Your task to perform on an android device: Open Google Maps Image 0: 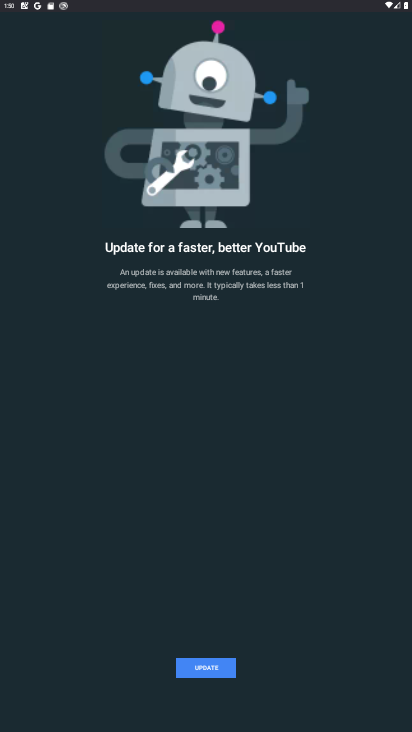
Step 0: press home button
Your task to perform on an android device: Open Google Maps Image 1: 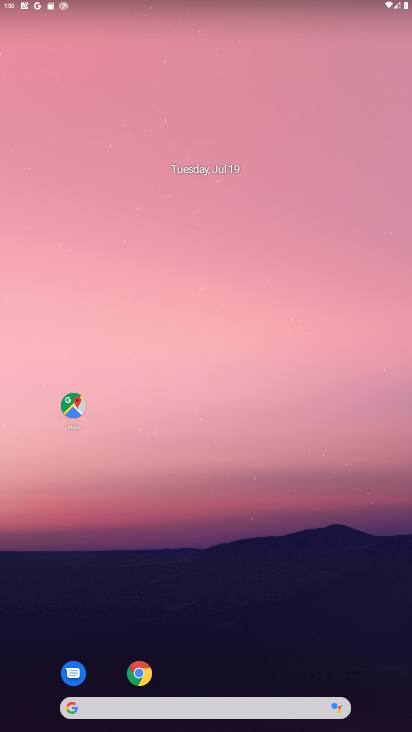
Step 1: click (69, 404)
Your task to perform on an android device: Open Google Maps Image 2: 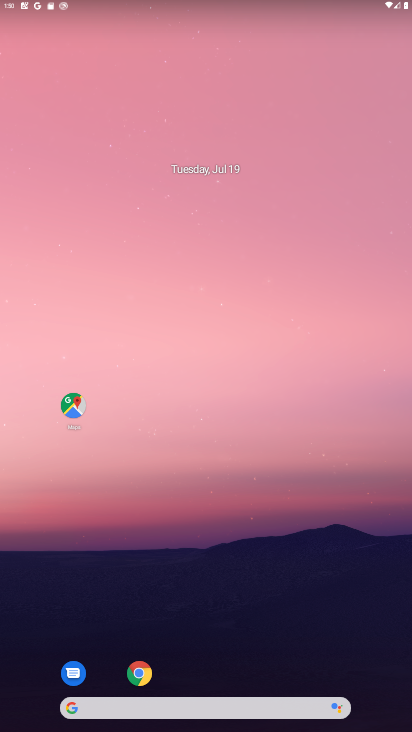
Step 2: click (69, 404)
Your task to perform on an android device: Open Google Maps Image 3: 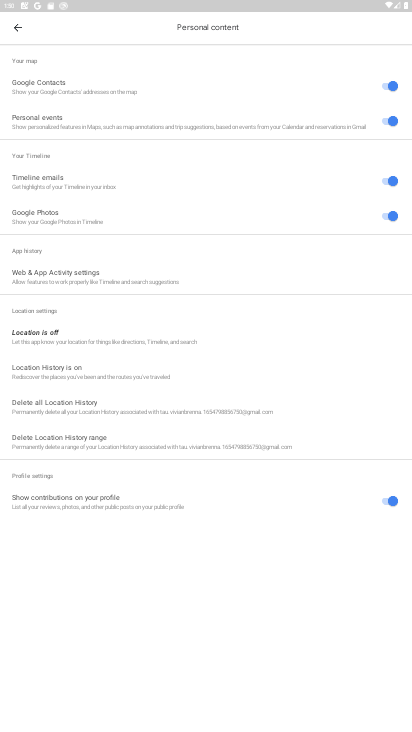
Step 3: click (13, 26)
Your task to perform on an android device: Open Google Maps Image 4: 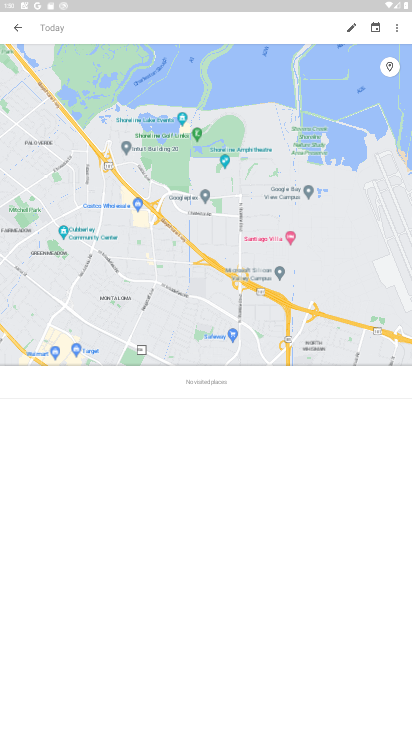
Step 4: task complete